Your task to perform on an android device: Search for pizza restaurants on Maps Image 0: 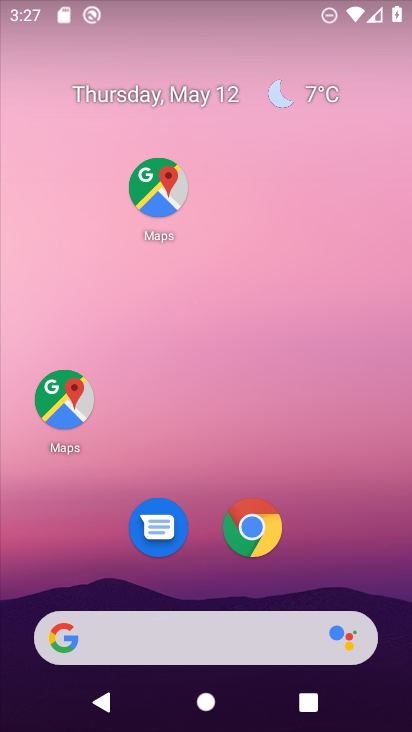
Step 0: click (79, 411)
Your task to perform on an android device: Search for pizza restaurants on Maps Image 1: 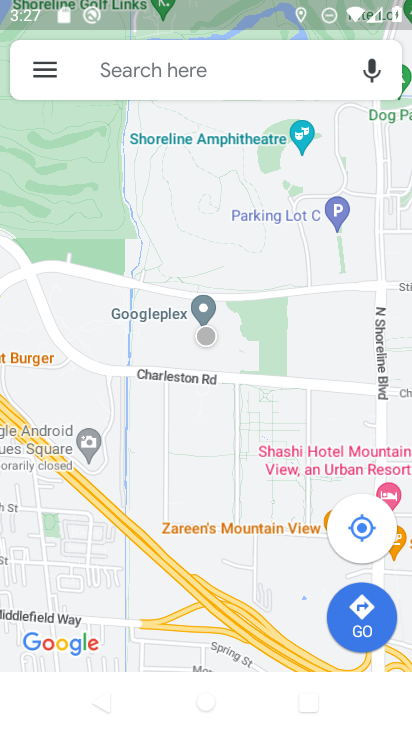
Step 1: click (142, 68)
Your task to perform on an android device: Search for pizza restaurants on Maps Image 2: 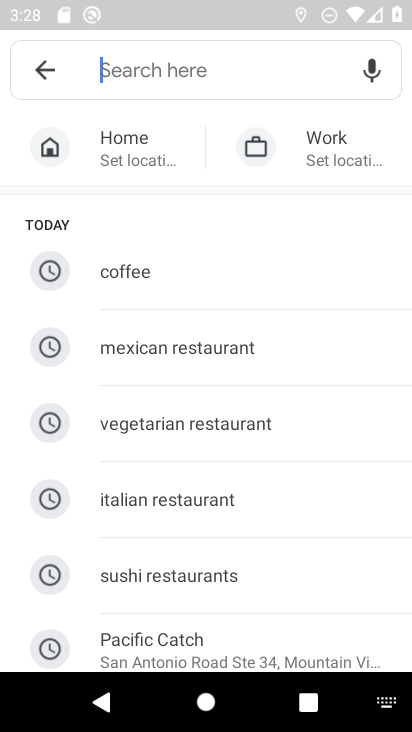
Step 2: drag from (188, 552) to (129, 44)
Your task to perform on an android device: Search for pizza restaurants on Maps Image 3: 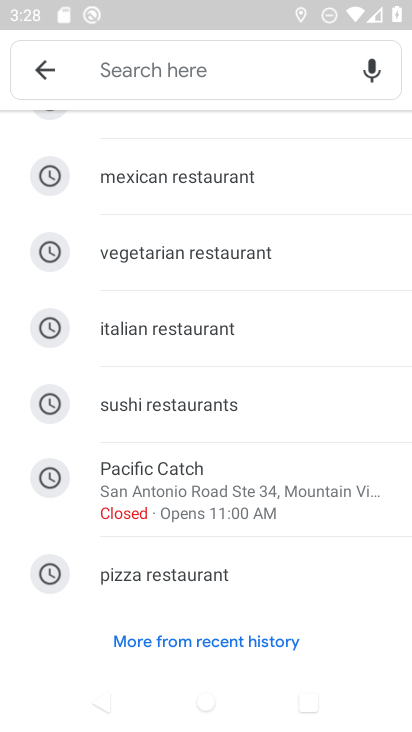
Step 3: click (158, 589)
Your task to perform on an android device: Search for pizza restaurants on Maps Image 4: 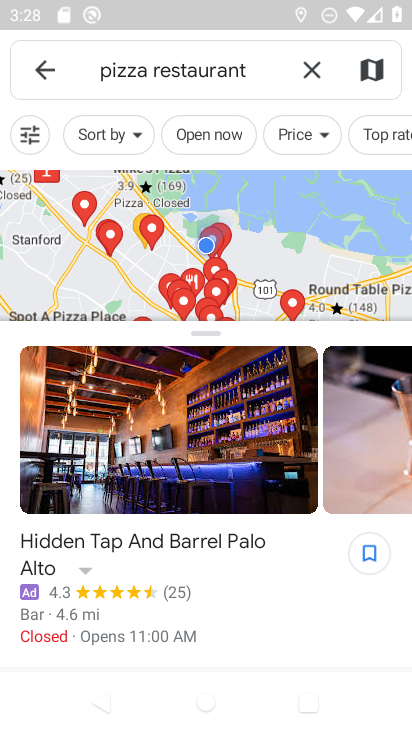
Step 4: task complete